Your task to perform on an android device: remove spam from my inbox in the gmail app Image 0: 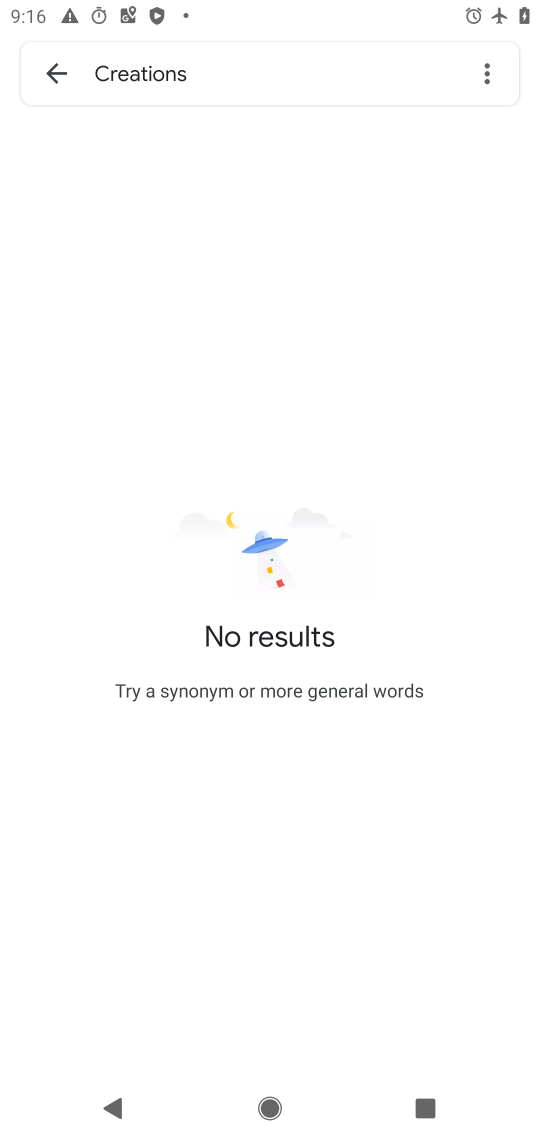
Step 0: press home button
Your task to perform on an android device: remove spam from my inbox in the gmail app Image 1: 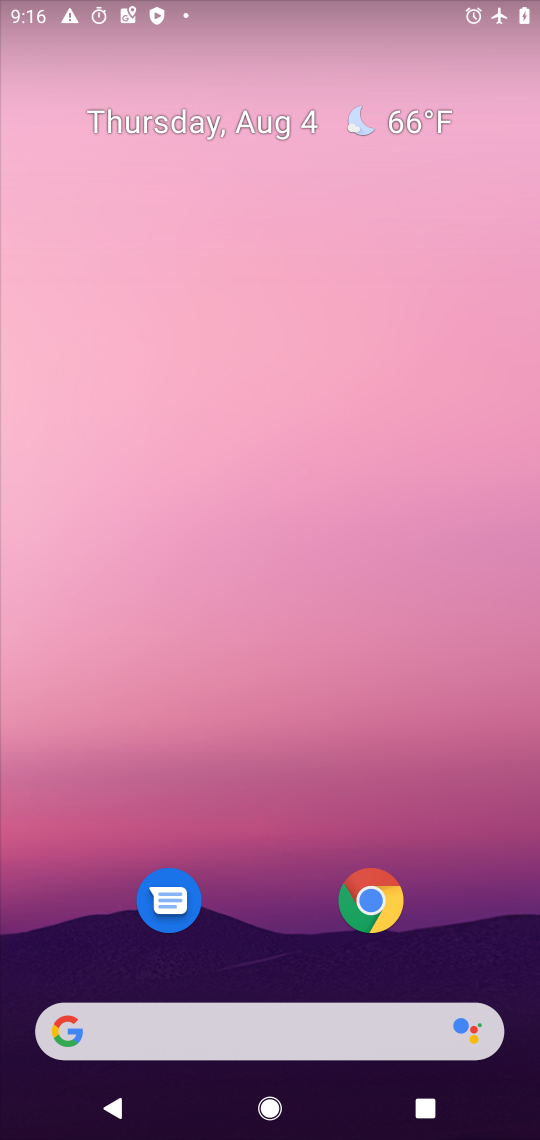
Step 1: drag from (236, 1021) to (301, 348)
Your task to perform on an android device: remove spam from my inbox in the gmail app Image 2: 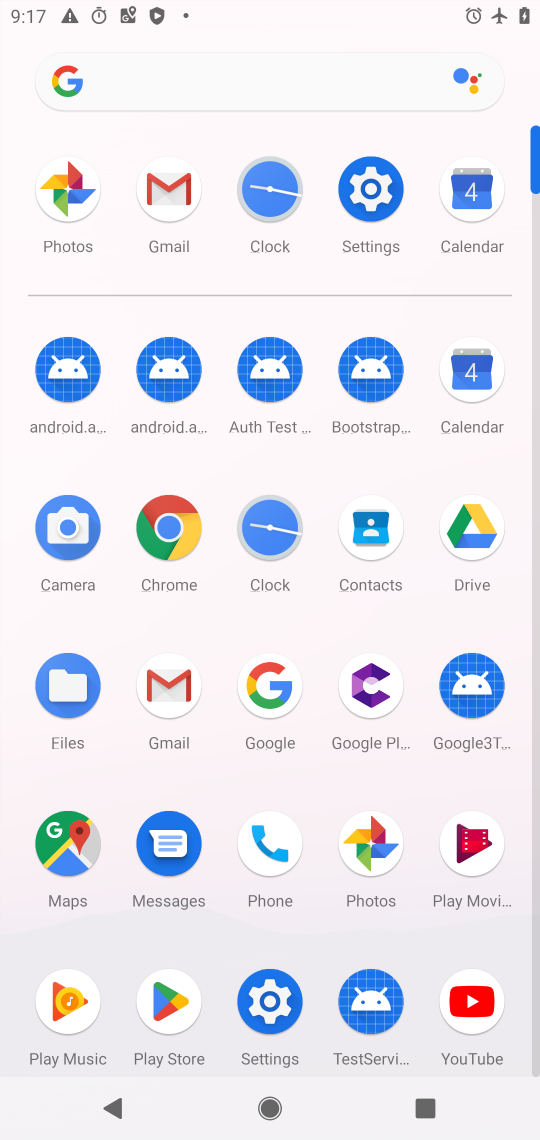
Step 2: click (170, 684)
Your task to perform on an android device: remove spam from my inbox in the gmail app Image 3: 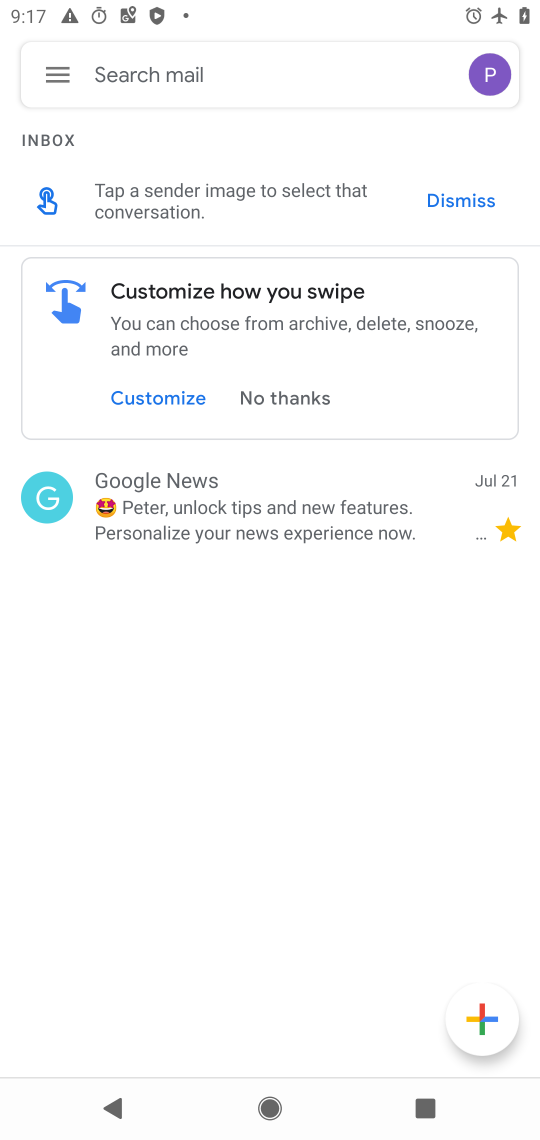
Step 3: click (52, 74)
Your task to perform on an android device: remove spam from my inbox in the gmail app Image 4: 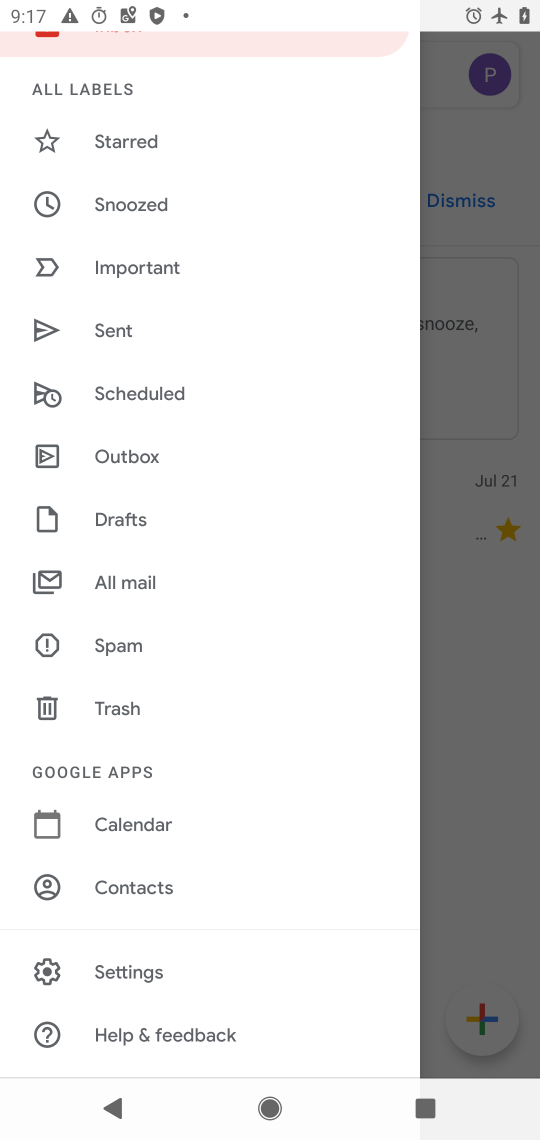
Step 4: click (126, 649)
Your task to perform on an android device: remove spam from my inbox in the gmail app Image 5: 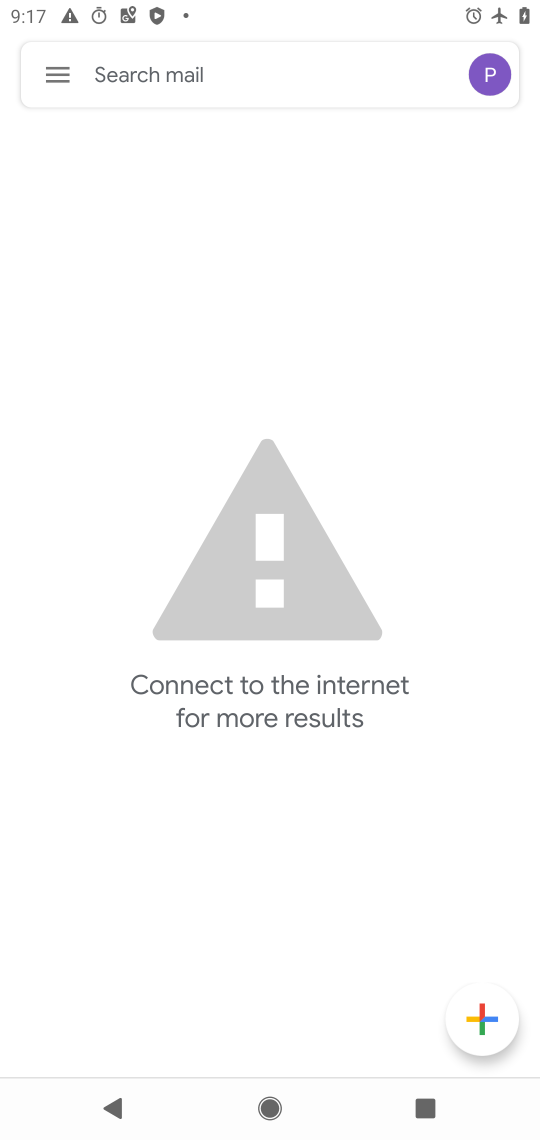
Step 5: task complete